Your task to perform on an android device: Go to display settings Image 0: 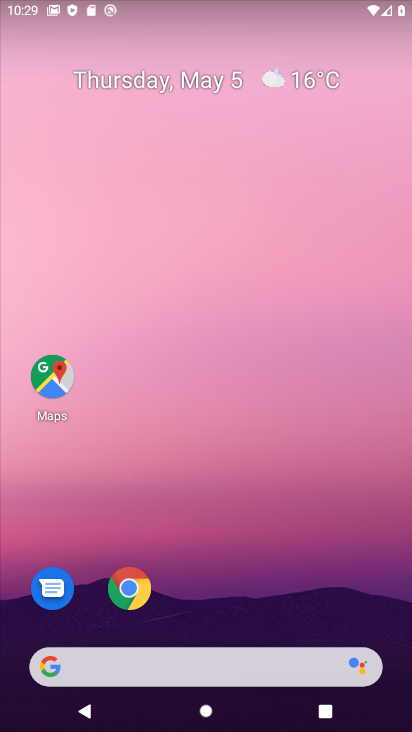
Step 0: drag from (226, 574) to (252, 28)
Your task to perform on an android device: Go to display settings Image 1: 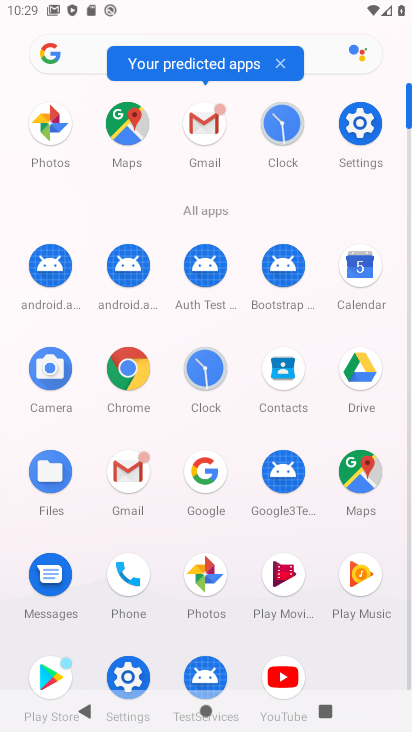
Step 1: click (356, 123)
Your task to perform on an android device: Go to display settings Image 2: 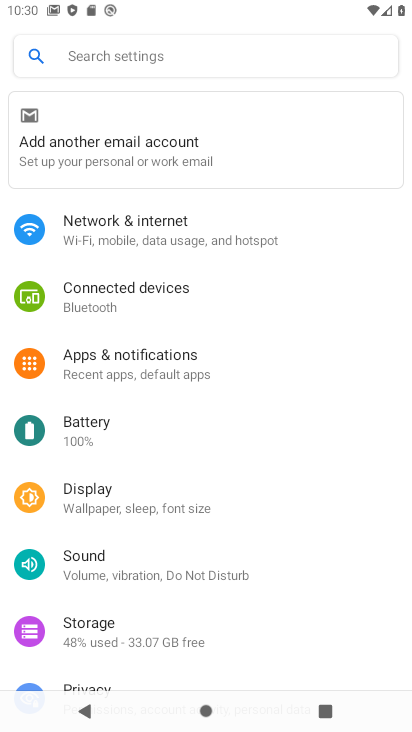
Step 2: click (158, 513)
Your task to perform on an android device: Go to display settings Image 3: 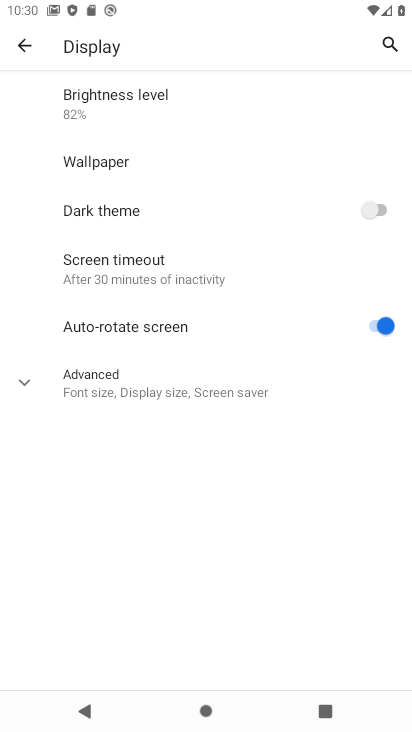
Step 3: click (250, 390)
Your task to perform on an android device: Go to display settings Image 4: 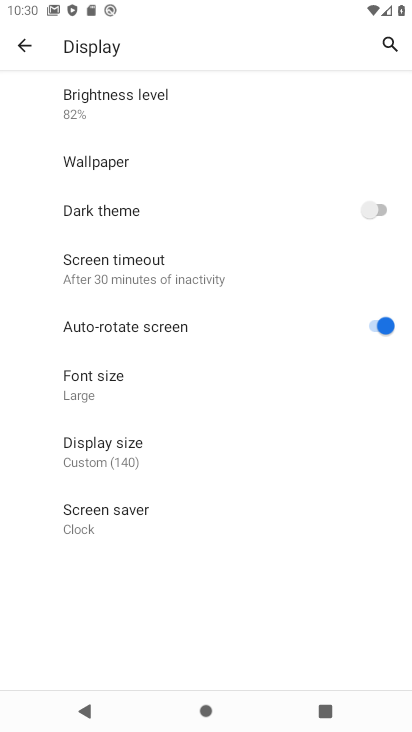
Step 4: task complete